Your task to perform on an android device: move an email to a new category in the gmail app Image 0: 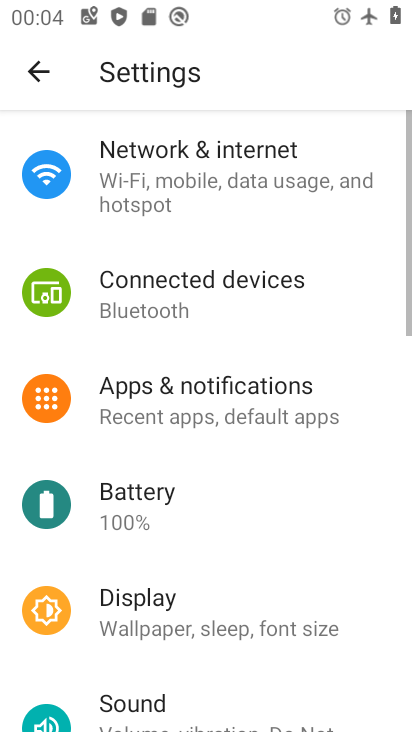
Step 0: press home button
Your task to perform on an android device: move an email to a new category in the gmail app Image 1: 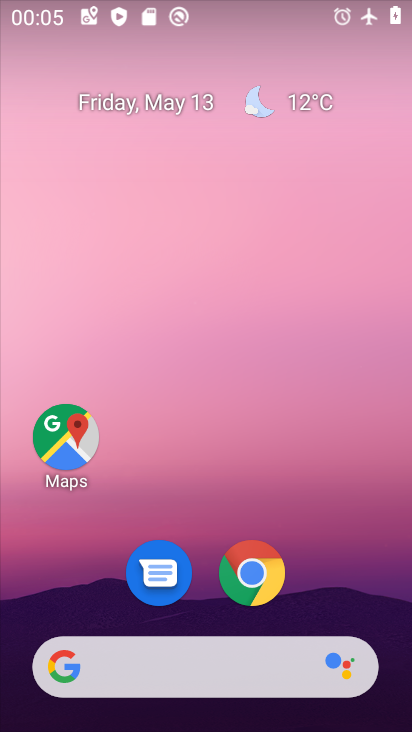
Step 1: drag from (177, 705) to (333, 54)
Your task to perform on an android device: move an email to a new category in the gmail app Image 2: 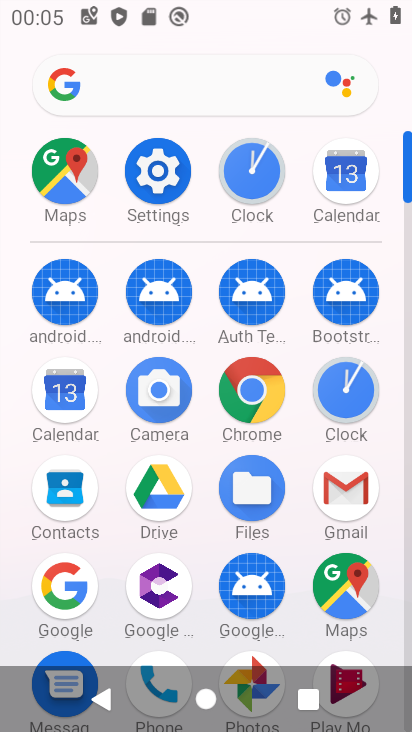
Step 2: click (367, 486)
Your task to perform on an android device: move an email to a new category in the gmail app Image 3: 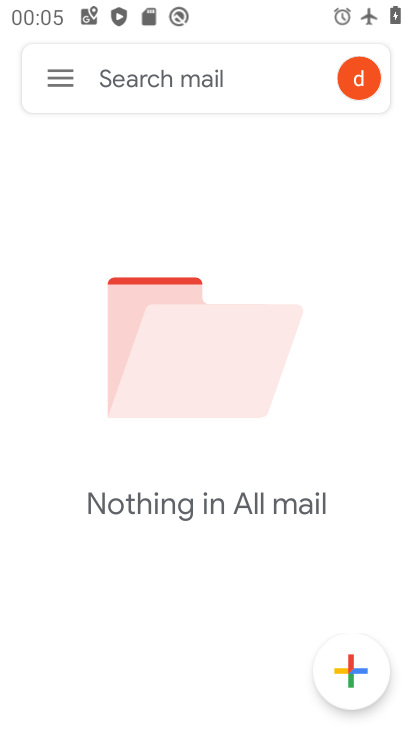
Step 3: task complete